Your task to perform on an android device: change the clock style Image 0: 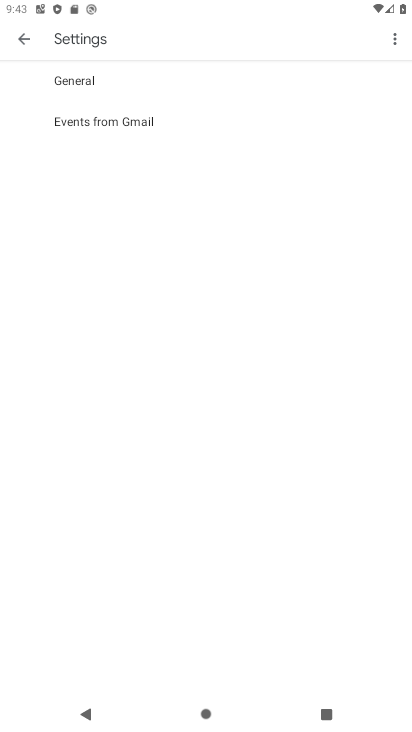
Step 0: task complete